Your task to perform on an android device: add a label to a message in the gmail app Image 0: 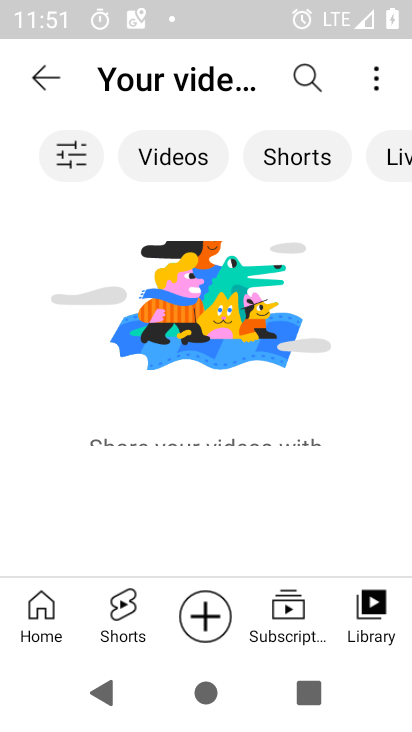
Step 0: press back button
Your task to perform on an android device: add a label to a message in the gmail app Image 1: 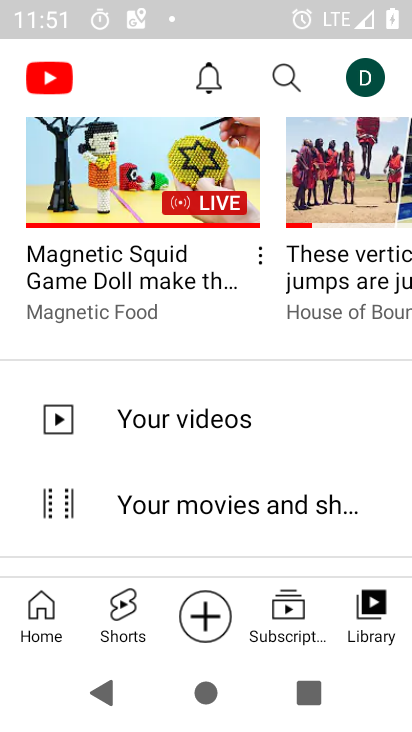
Step 1: press back button
Your task to perform on an android device: add a label to a message in the gmail app Image 2: 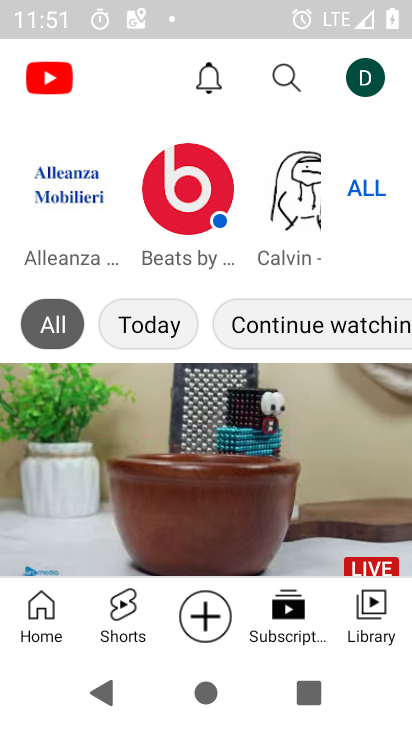
Step 2: press home button
Your task to perform on an android device: add a label to a message in the gmail app Image 3: 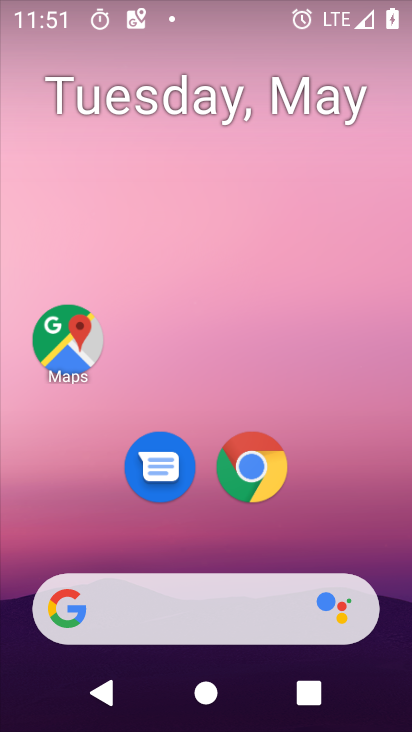
Step 3: drag from (307, 337) to (260, 27)
Your task to perform on an android device: add a label to a message in the gmail app Image 4: 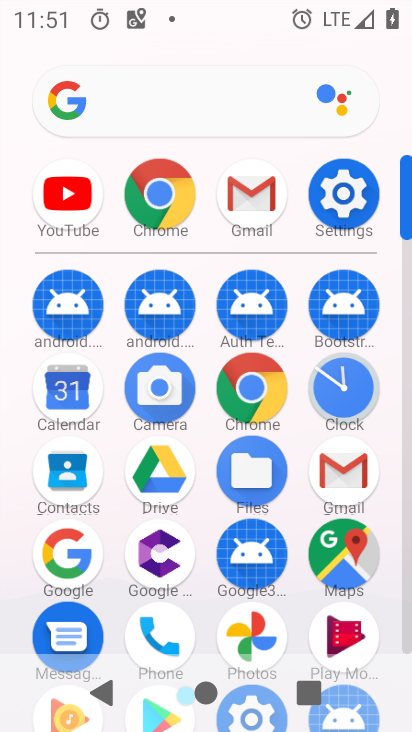
Step 4: drag from (17, 551) to (10, 202)
Your task to perform on an android device: add a label to a message in the gmail app Image 5: 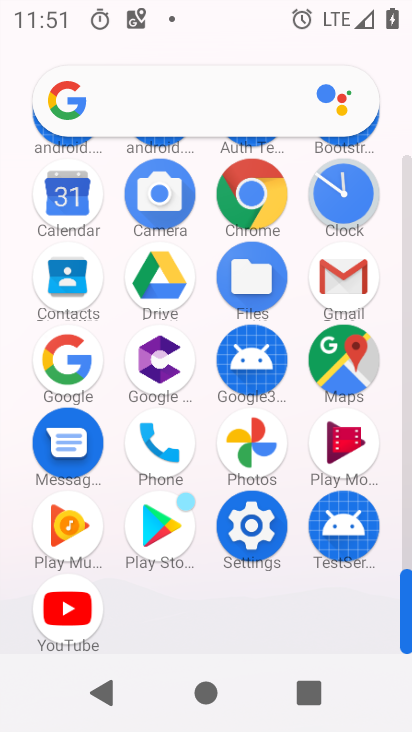
Step 5: click (346, 268)
Your task to perform on an android device: add a label to a message in the gmail app Image 6: 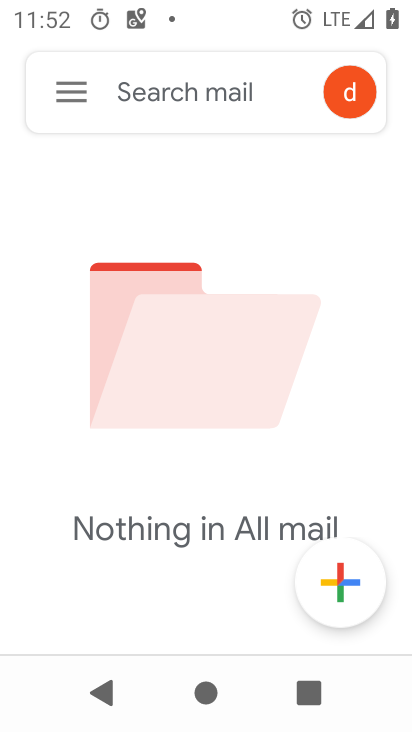
Step 6: click (66, 89)
Your task to perform on an android device: add a label to a message in the gmail app Image 7: 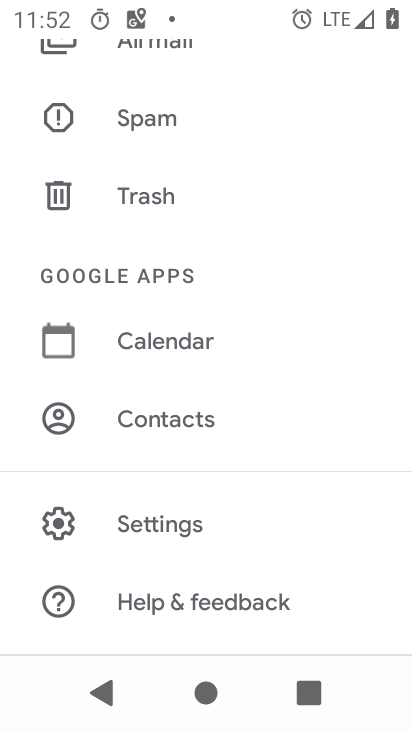
Step 7: drag from (231, 171) to (237, 576)
Your task to perform on an android device: add a label to a message in the gmail app Image 8: 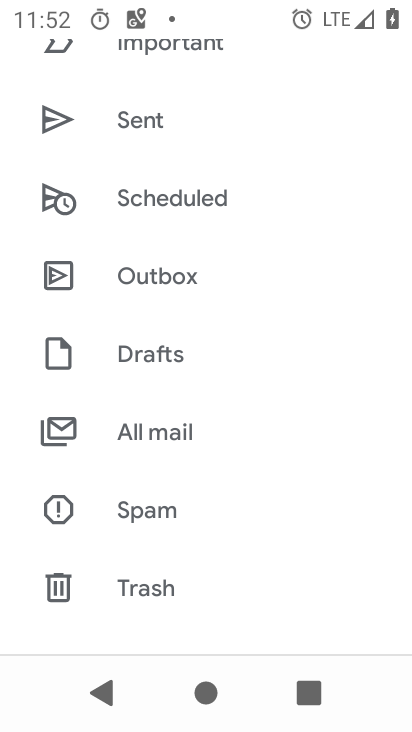
Step 8: click (156, 434)
Your task to perform on an android device: add a label to a message in the gmail app Image 9: 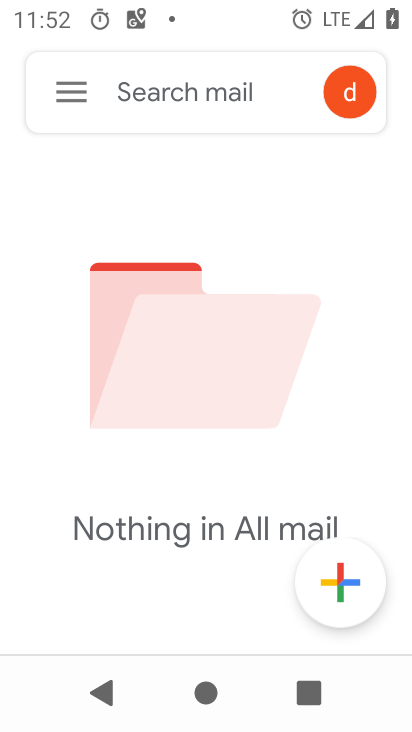
Step 9: click (74, 86)
Your task to perform on an android device: add a label to a message in the gmail app Image 10: 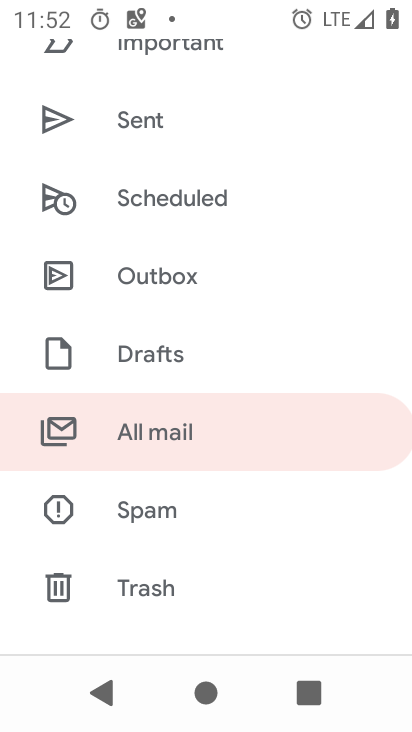
Step 10: drag from (223, 128) to (241, 680)
Your task to perform on an android device: add a label to a message in the gmail app Image 11: 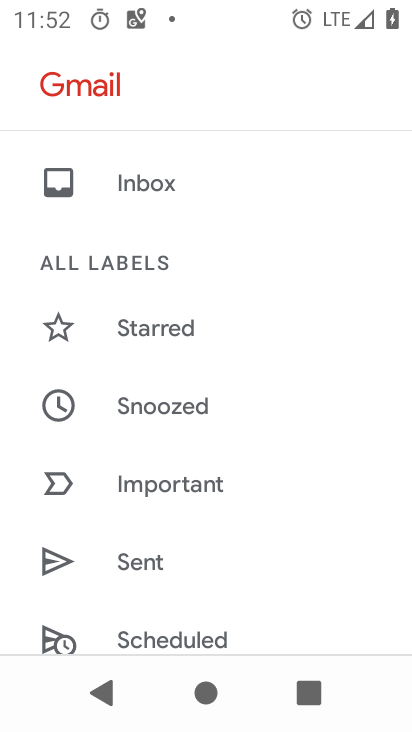
Step 11: click (190, 169)
Your task to perform on an android device: add a label to a message in the gmail app Image 12: 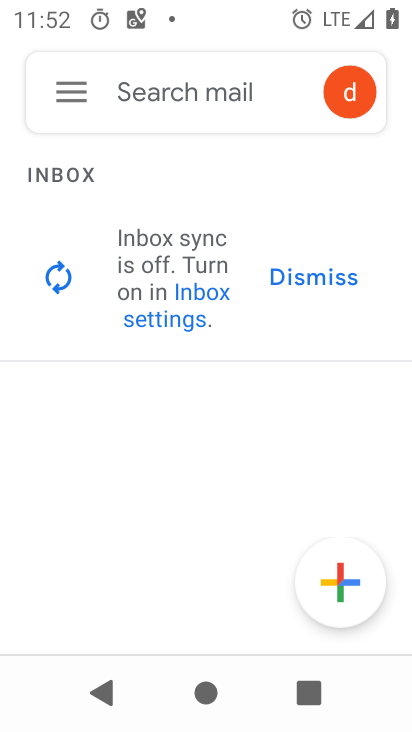
Step 12: task complete